Your task to perform on an android device: delete browsing data in the chrome app Image 0: 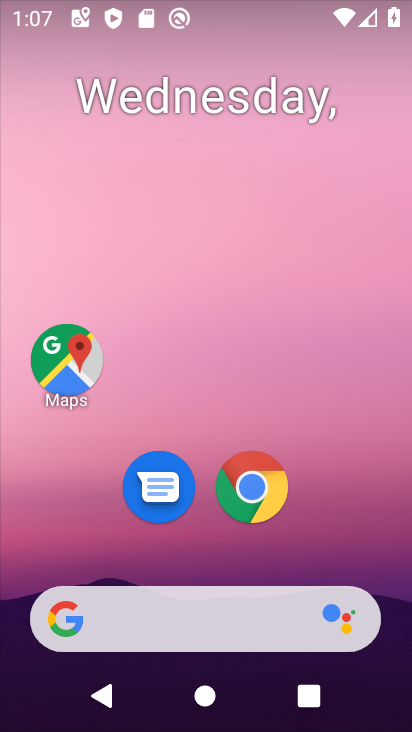
Step 0: click (268, 497)
Your task to perform on an android device: delete browsing data in the chrome app Image 1: 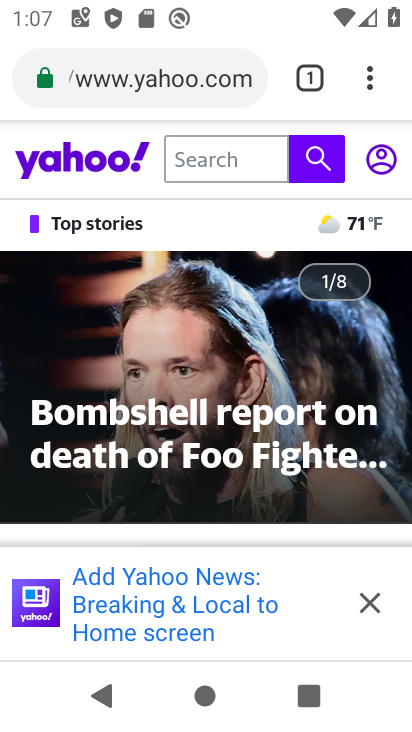
Step 1: click (364, 82)
Your task to perform on an android device: delete browsing data in the chrome app Image 2: 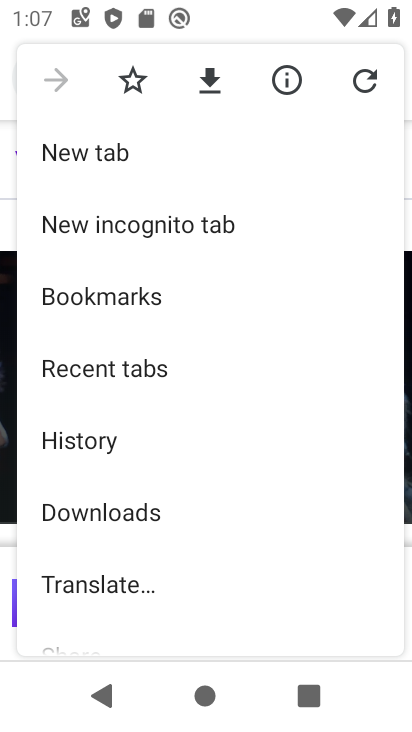
Step 2: click (142, 302)
Your task to perform on an android device: delete browsing data in the chrome app Image 3: 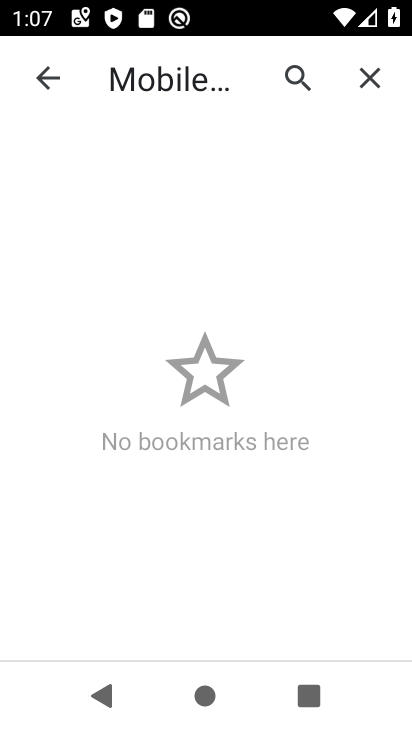
Step 3: task complete